Your task to perform on an android device: turn off location history Image 0: 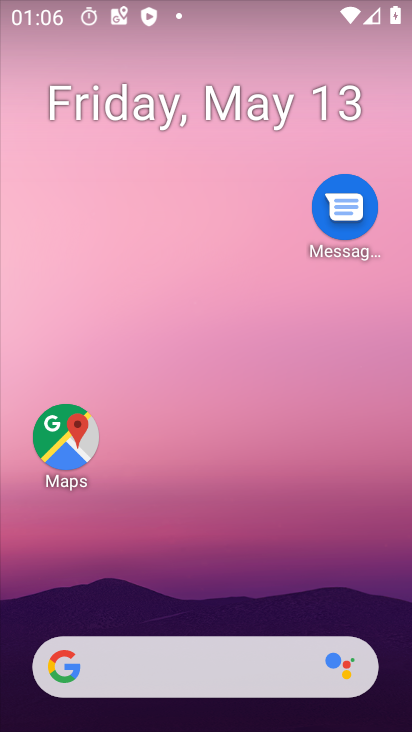
Step 0: drag from (261, 561) to (214, 62)
Your task to perform on an android device: turn off location history Image 1: 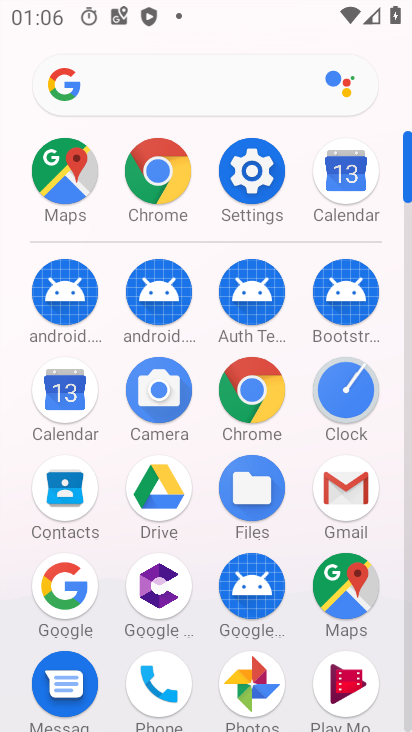
Step 1: click (355, 590)
Your task to perform on an android device: turn off location history Image 2: 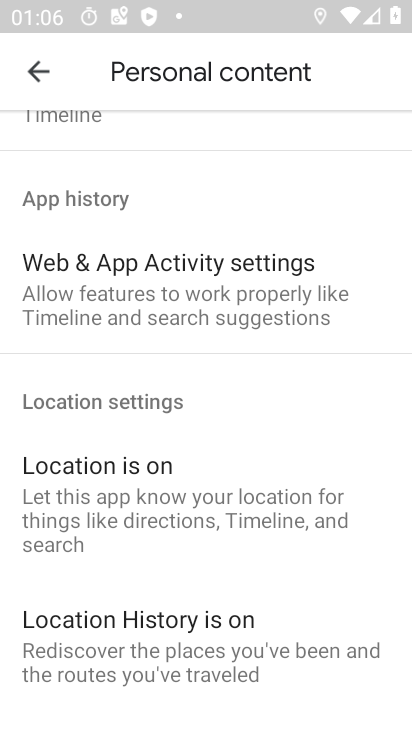
Step 2: drag from (308, 607) to (308, 187)
Your task to perform on an android device: turn off location history Image 3: 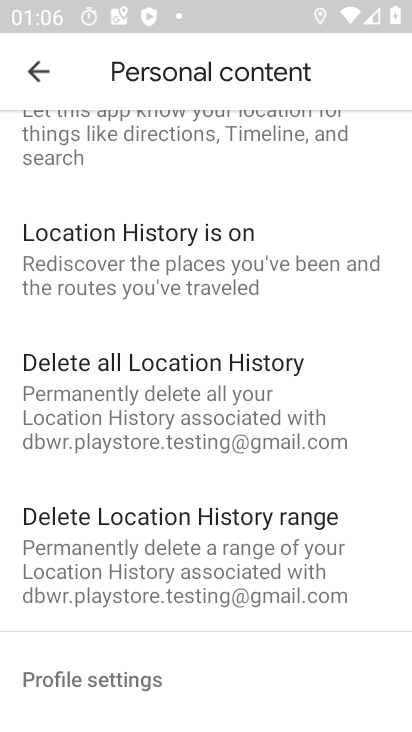
Step 3: click (99, 249)
Your task to perform on an android device: turn off location history Image 4: 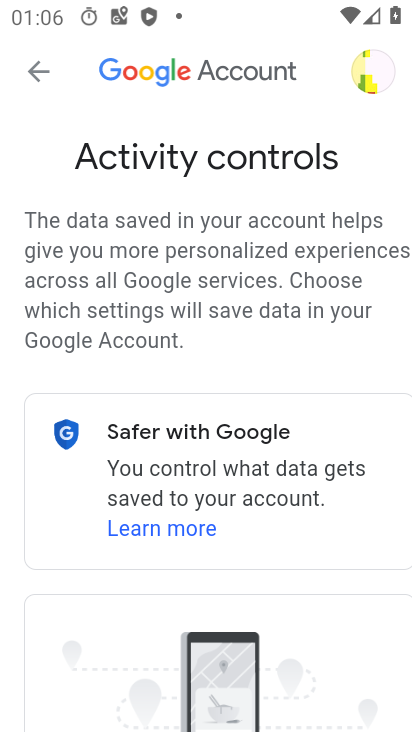
Step 4: drag from (313, 637) to (314, 132)
Your task to perform on an android device: turn off location history Image 5: 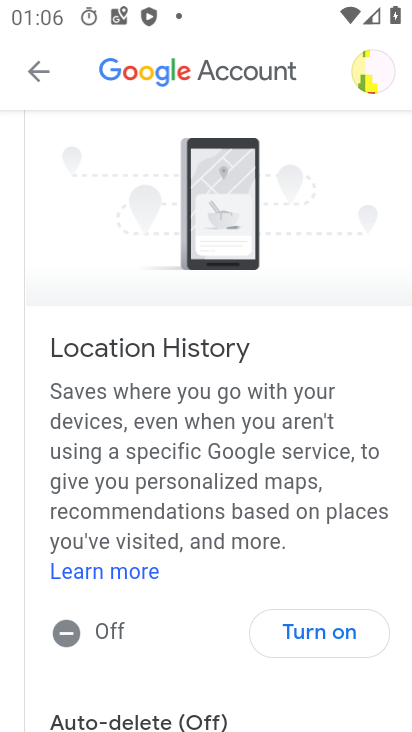
Step 5: click (314, 632)
Your task to perform on an android device: turn off location history Image 6: 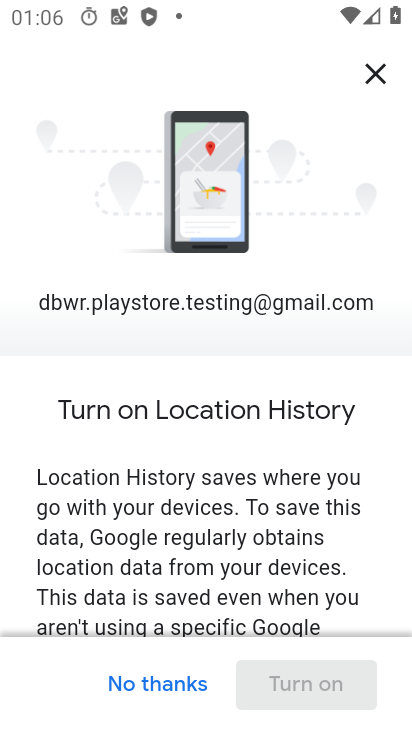
Step 6: click (373, 70)
Your task to perform on an android device: turn off location history Image 7: 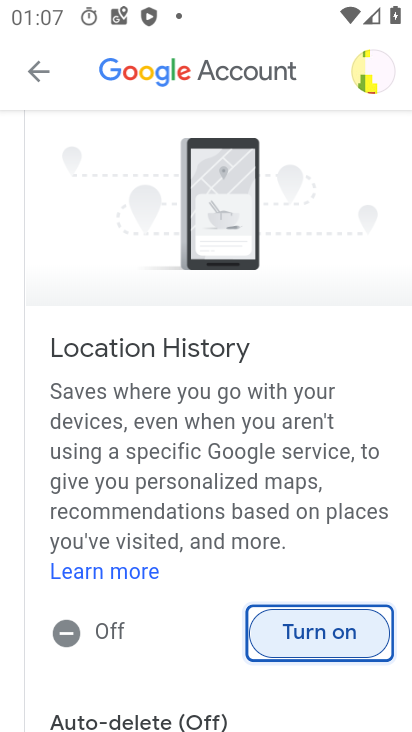
Step 7: click (32, 67)
Your task to perform on an android device: turn off location history Image 8: 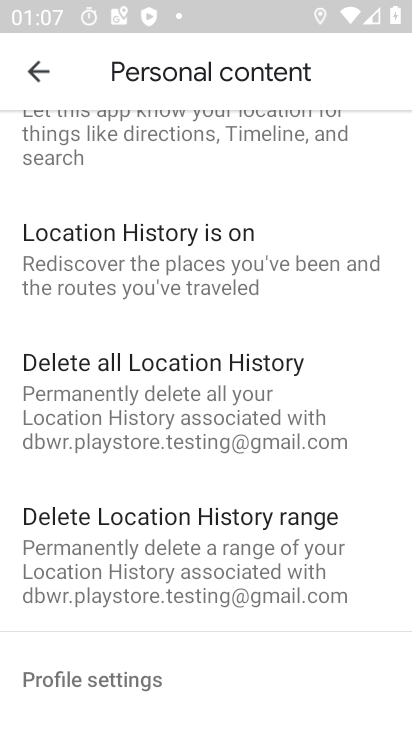
Step 8: task complete